Your task to perform on an android device: Do I have any events tomorrow? Image 0: 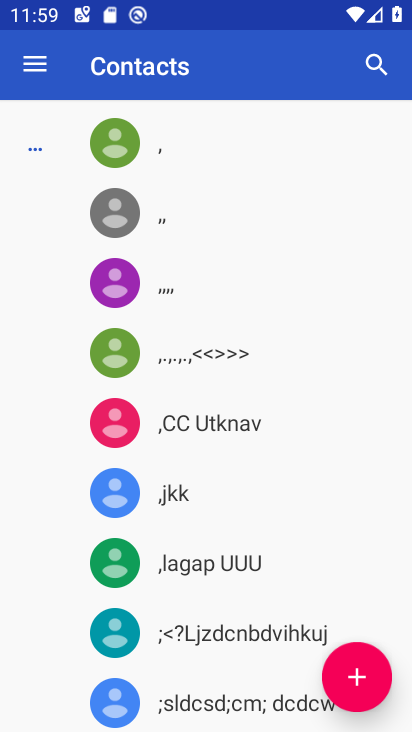
Step 0: press home button
Your task to perform on an android device: Do I have any events tomorrow? Image 1: 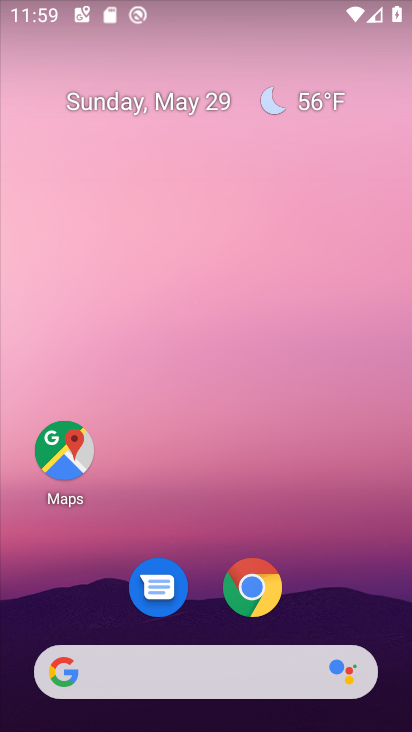
Step 1: drag from (348, 612) to (222, 130)
Your task to perform on an android device: Do I have any events tomorrow? Image 2: 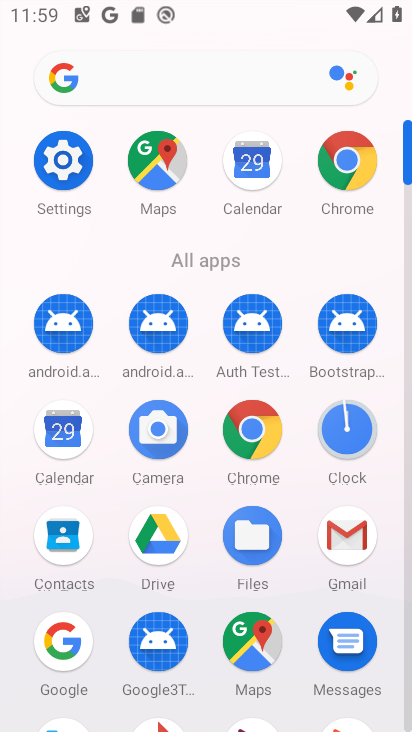
Step 2: click (71, 439)
Your task to perform on an android device: Do I have any events tomorrow? Image 3: 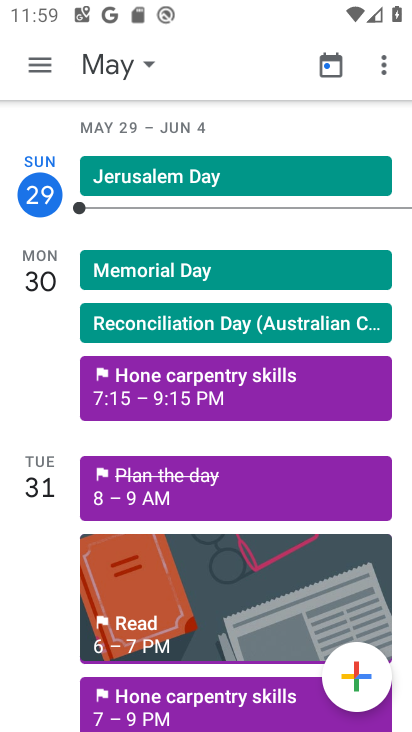
Step 3: click (41, 69)
Your task to perform on an android device: Do I have any events tomorrow? Image 4: 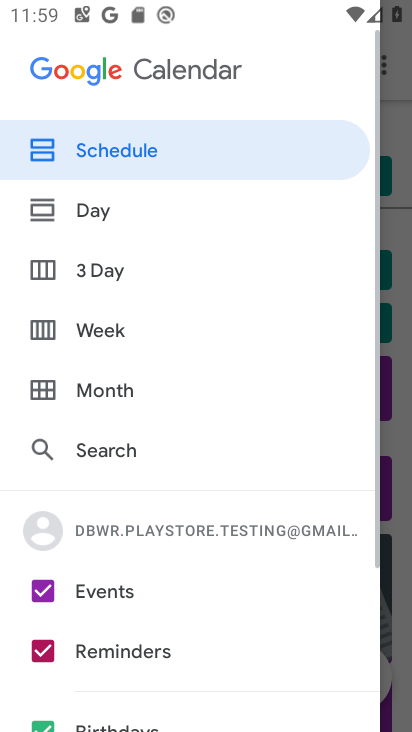
Step 4: drag from (132, 611) to (126, 289)
Your task to perform on an android device: Do I have any events tomorrow? Image 5: 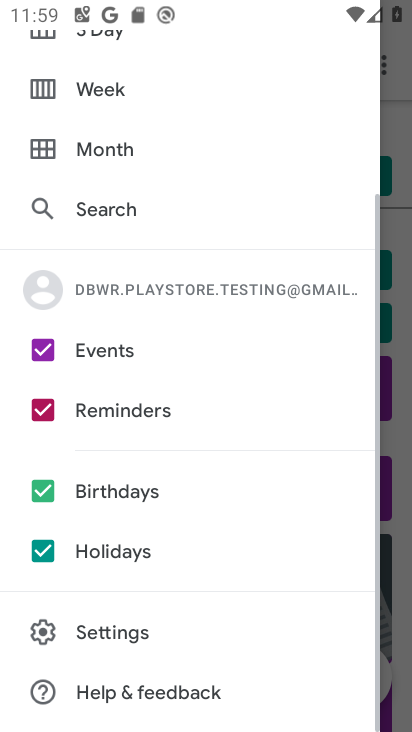
Step 5: click (43, 557)
Your task to perform on an android device: Do I have any events tomorrow? Image 6: 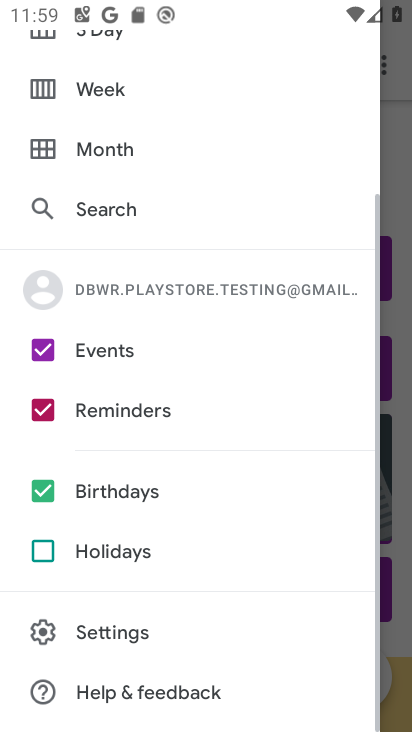
Step 6: click (46, 492)
Your task to perform on an android device: Do I have any events tomorrow? Image 7: 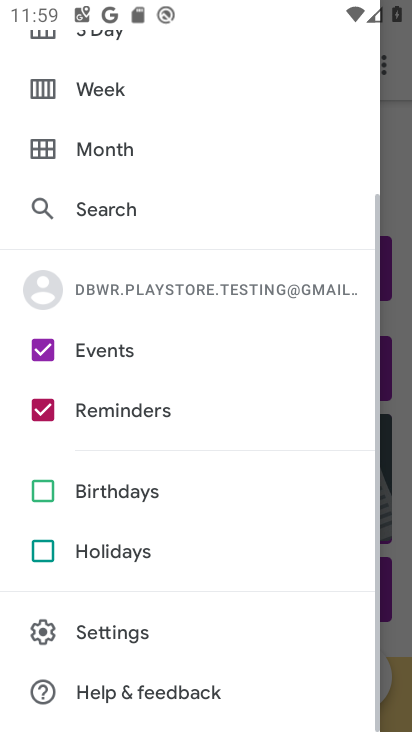
Step 7: click (47, 406)
Your task to perform on an android device: Do I have any events tomorrow? Image 8: 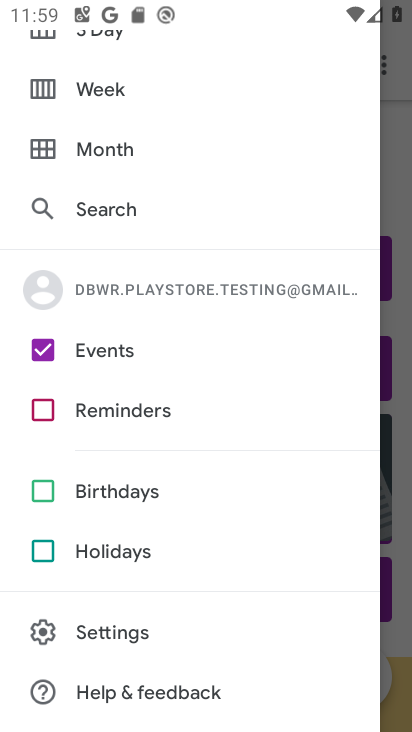
Step 8: drag from (130, 111) to (126, 408)
Your task to perform on an android device: Do I have any events tomorrow? Image 9: 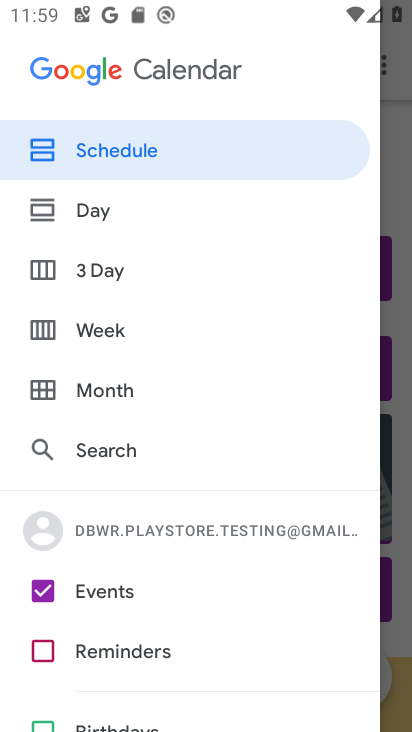
Step 9: click (118, 164)
Your task to perform on an android device: Do I have any events tomorrow? Image 10: 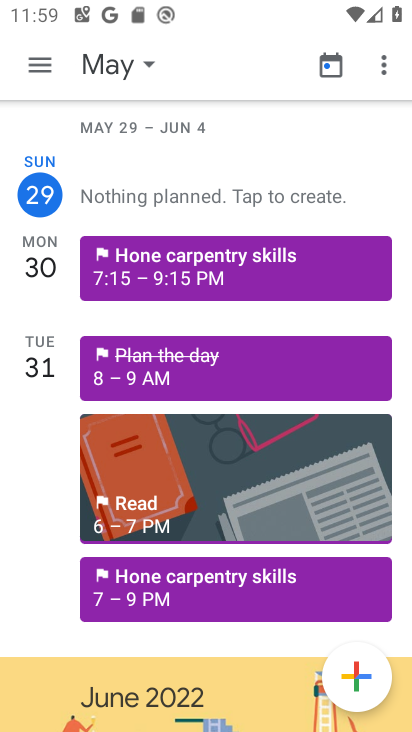
Step 10: task complete